Your task to perform on an android device: change your default location settings in chrome Image 0: 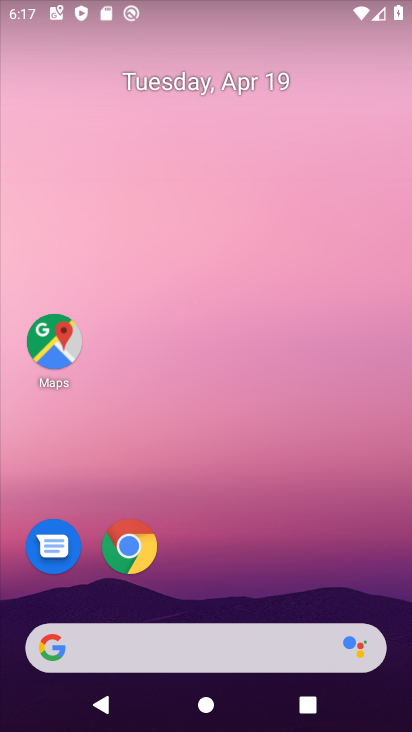
Step 0: drag from (252, 589) to (409, 149)
Your task to perform on an android device: change your default location settings in chrome Image 1: 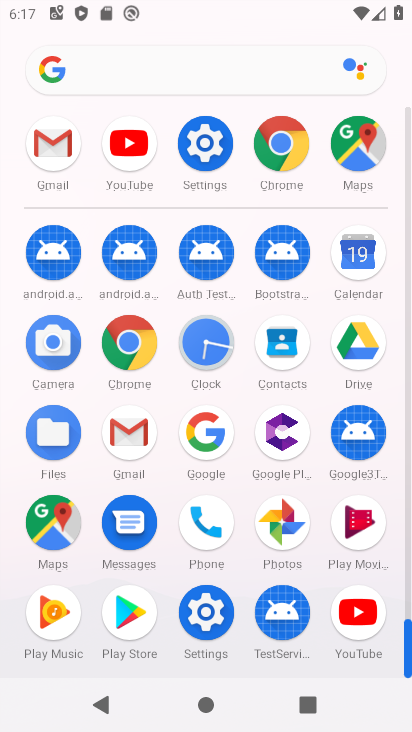
Step 1: click (136, 342)
Your task to perform on an android device: change your default location settings in chrome Image 2: 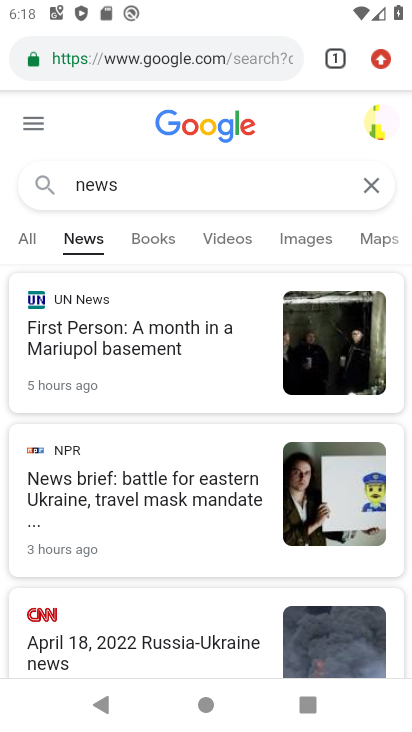
Step 2: drag from (396, 54) to (191, 580)
Your task to perform on an android device: change your default location settings in chrome Image 3: 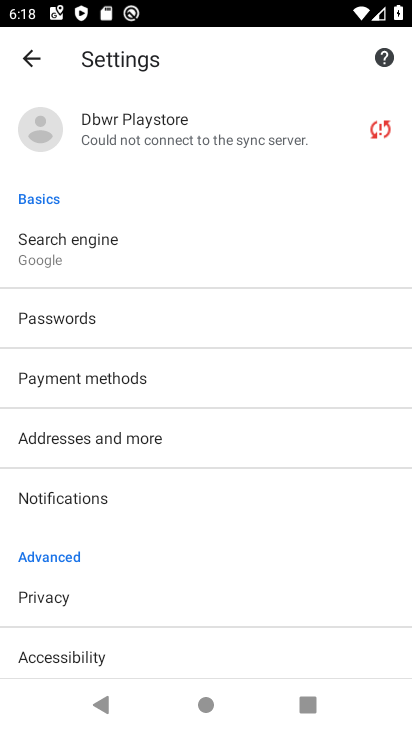
Step 3: drag from (200, 537) to (273, 133)
Your task to perform on an android device: change your default location settings in chrome Image 4: 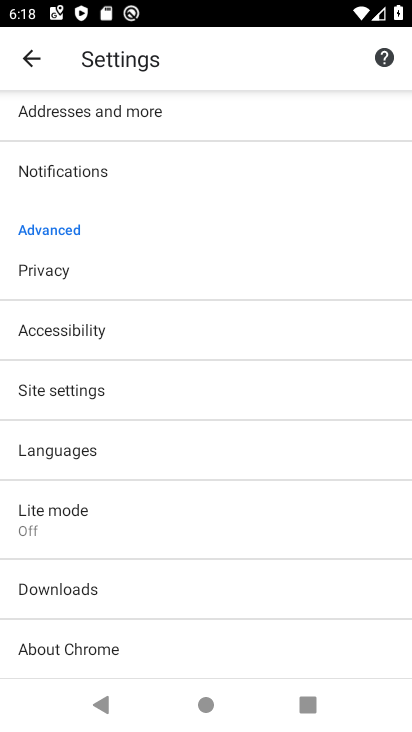
Step 4: click (104, 391)
Your task to perform on an android device: change your default location settings in chrome Image 5: 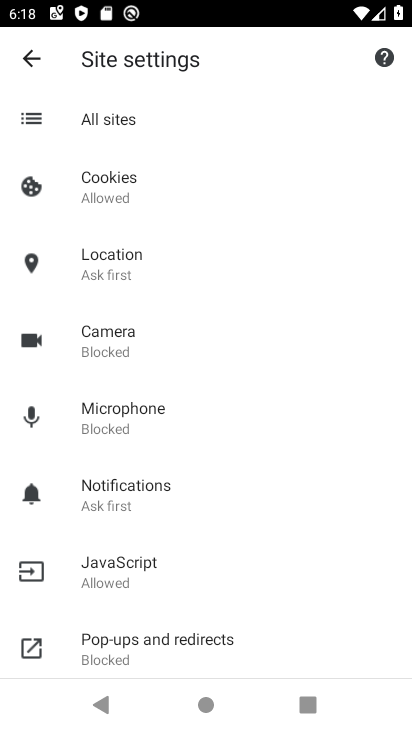
Step 5: click (144, 255)
Your task to perform on an android device: change your default location settings in chrome Image 6: 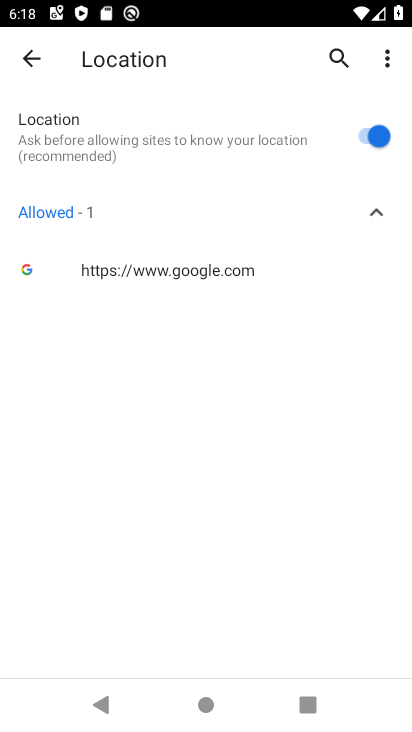
Step 6: click (377, 129)
Your task to perform on an android device: change your default location settings in chrome Image 7: 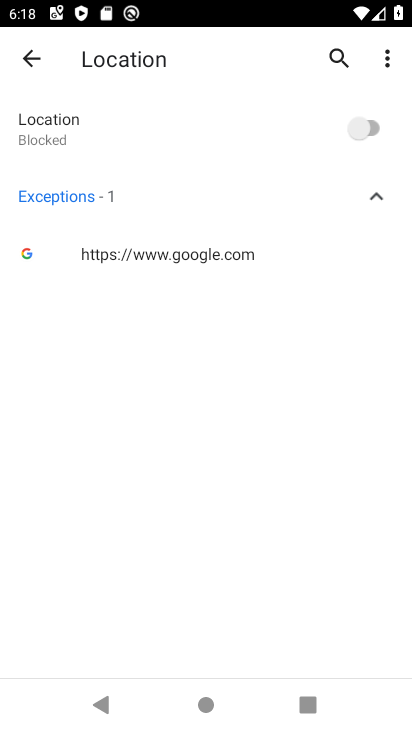
Step 7: task complete